Your task to perform on an android device: turn off picture-in-picture Image 0: 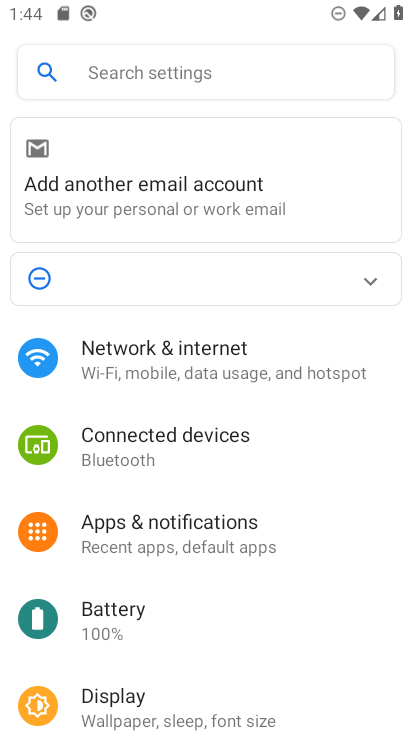
Step 0: press home button
Your task to perform on an android device: turn off picture-in-picture Image 1: 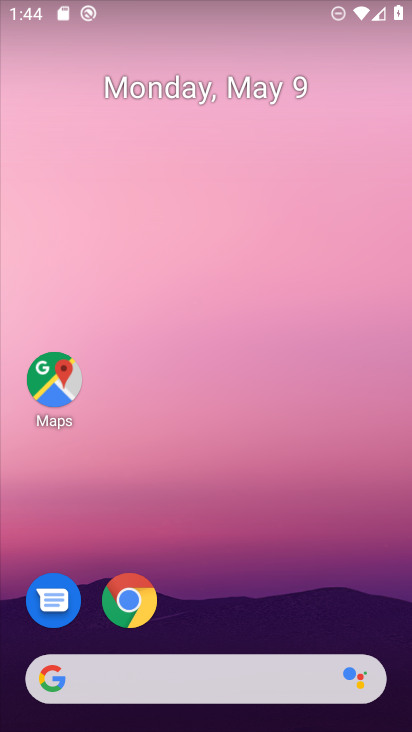
Step 1: click (129, 601)
Your task to perform on an android device: turn off picture-in-picture Image 2: 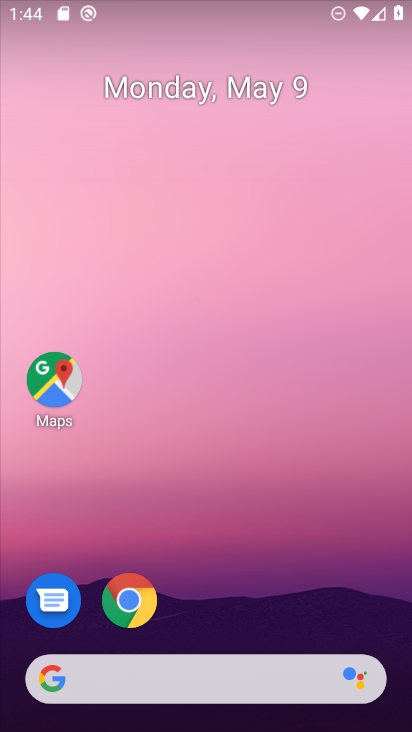
Step 2: click (268, 405)
Your task to perform on an android device: turn off picture-in-picture Image 3: 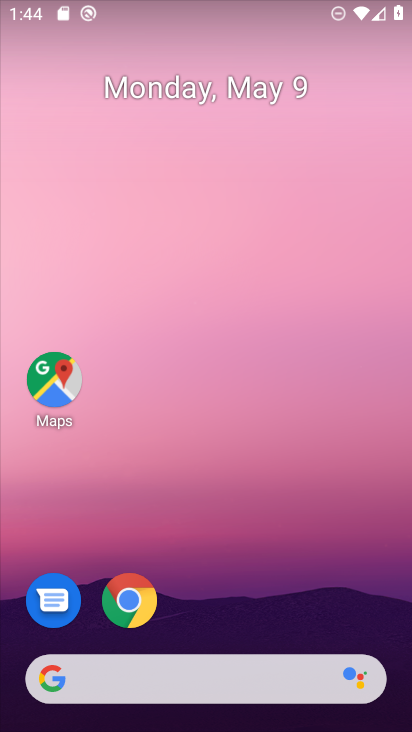
Step 3: click (136, 602)
Your task to perform on an android device: turn off picture-in-picture Image 4: 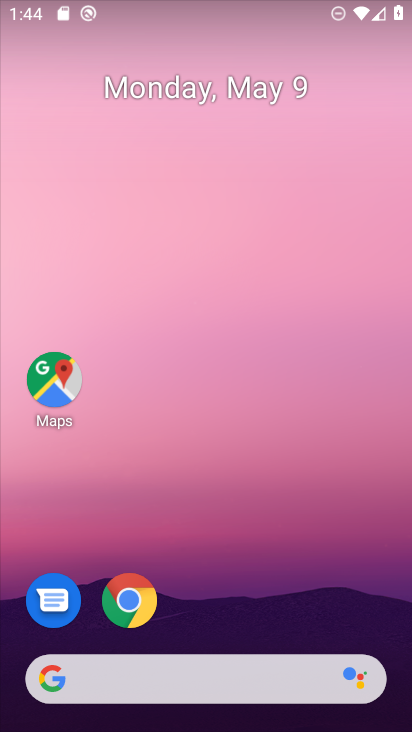
Step 4: click (268, 416)
Your task to perform on an android device: turn off picture-in-picture Image 5: 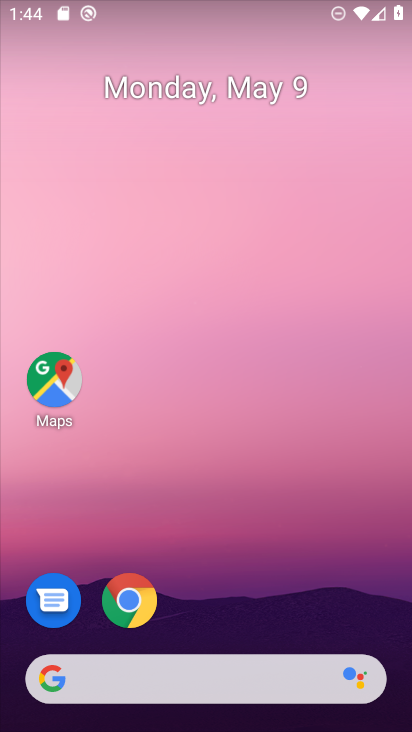
Step 5: drag from (127, 589) to (169, 536)
Your task to perform on an android device: turn off picture-in-picture Image 6: 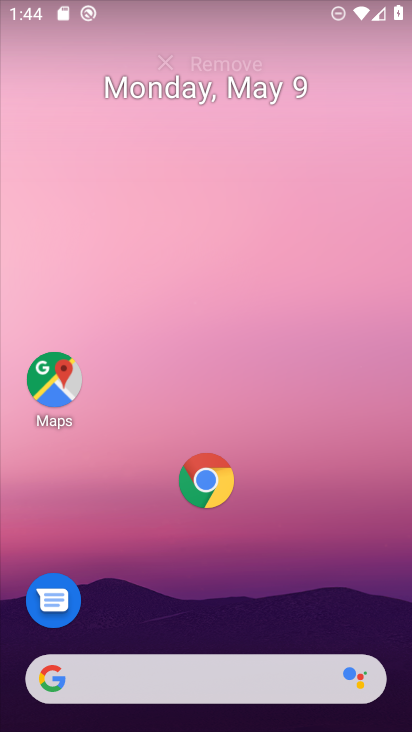
Step 6: click (257, 403)
Your task to perform on an android device: turn off picture-in-picture Image 7: 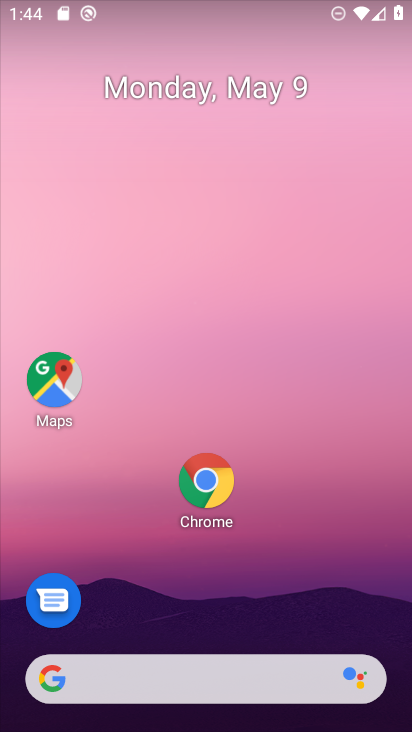
Step 7: click (199, 473)
Your task to perform on an android device: turn off picture-in-picture Image 8: 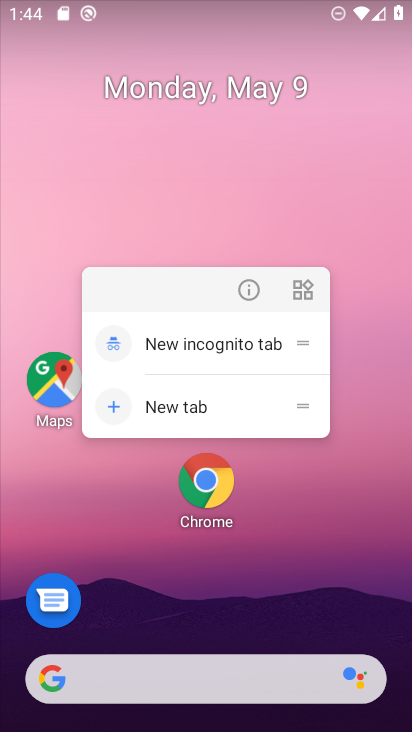
Step 8: click (261, 285)
Your task to perform on an android device: turn off picture-in-picture Image 9: 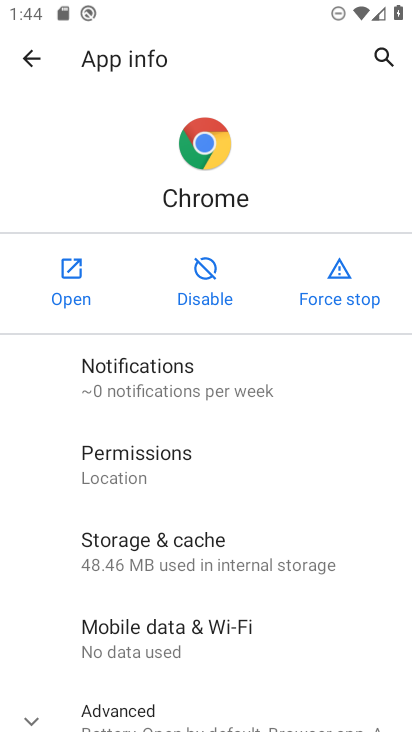
Step 9: drag from (197, 674) to (318, 49)
Your task to perform on an android device: turn off picture-in-picture Image 10: 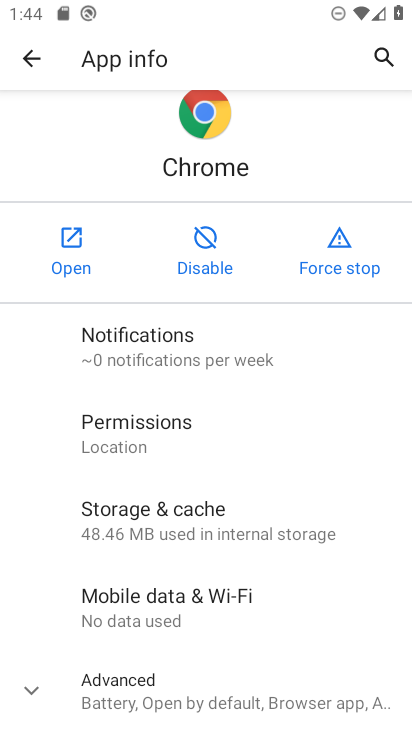
Step 10: click (123, 682)
Your task to perform on an android device: turn off picture-in-picture Image 11: 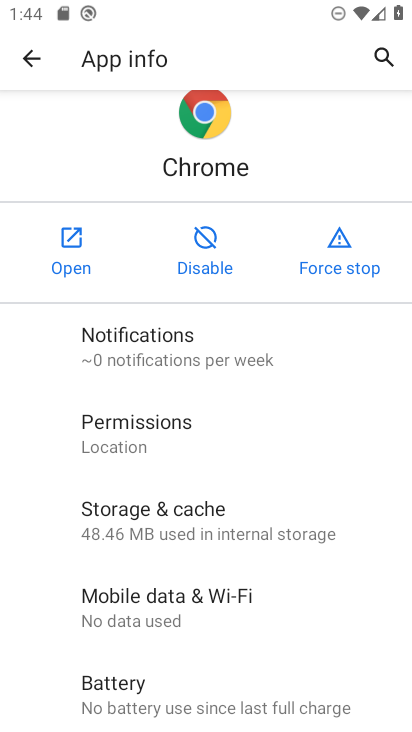
Step 11: drag from (180, 676) to (342, 90)
Your task to perform on an android device: turn off picture-in-picture Image 12: 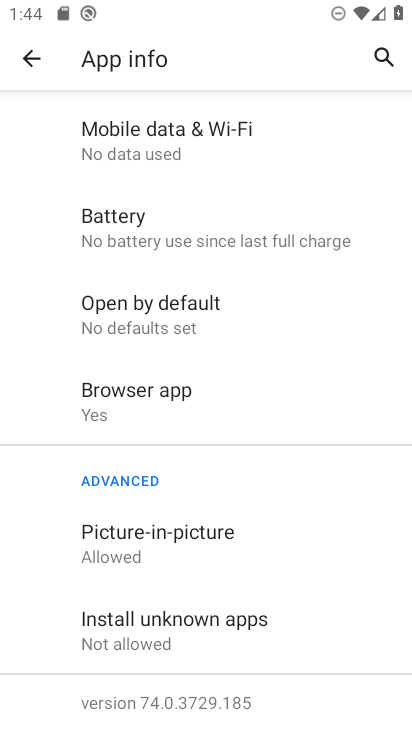
Step 12: click (131, 548)
Your task to perform on an android device: turn off picture-in-picture Image 13: 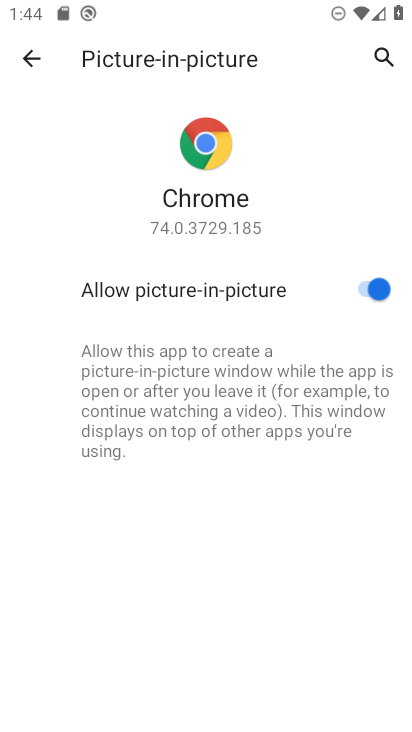
Step 13: click (363, 285)
Your task to perform on an android device: turn off picture-in-picture Image 14: 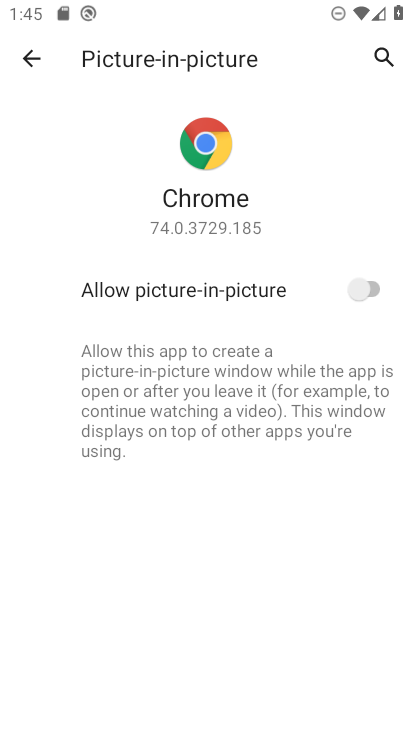
Step 14: task complete